Your task to perform on an android device: toggle wifi Image 0: 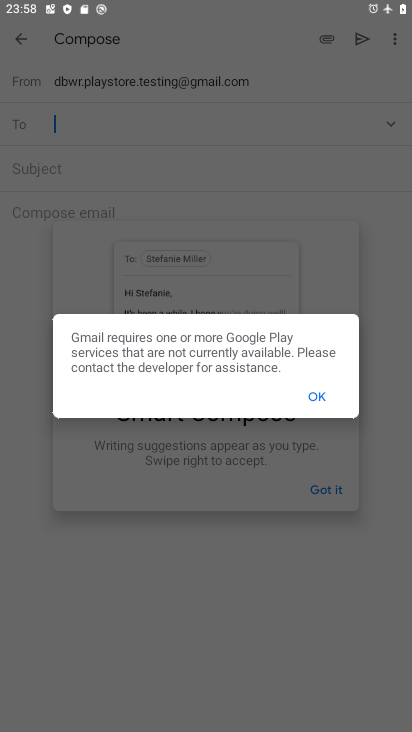
Step 0: press home button
Your task to perform on an android device: toggle wifi Image 1: 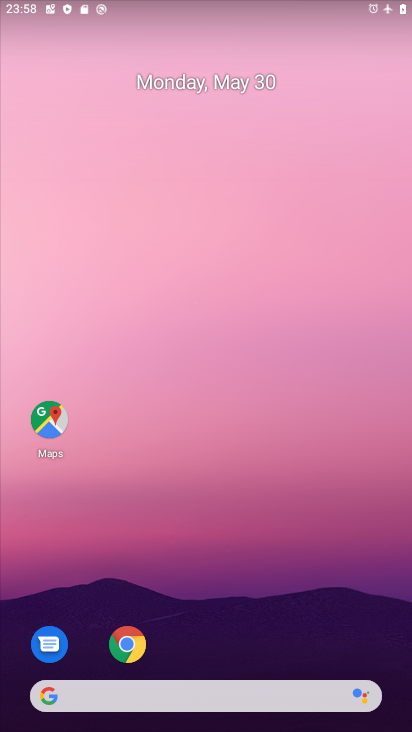
Step 1: drag from (379, 622) to (349, 119)
Your task to perform on an android device: toggle wifi Image 2: 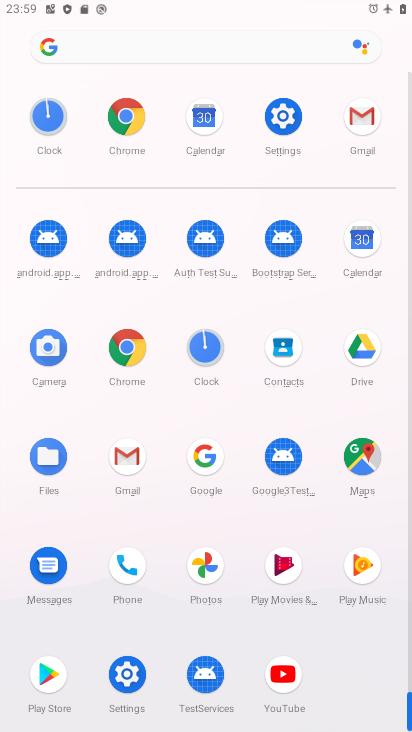
Step 2: click (127, 675)
Your task to perform on an android device: toggle wifi Image 3: 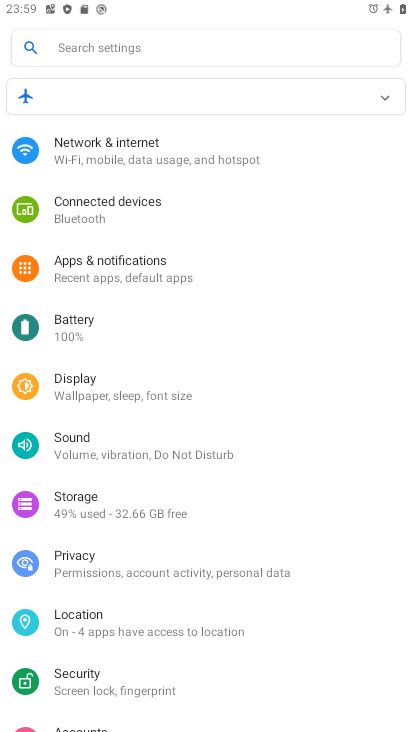
Step 3: click (85, 150)
Your task to perform on an android device: toggle wifi Image 4: 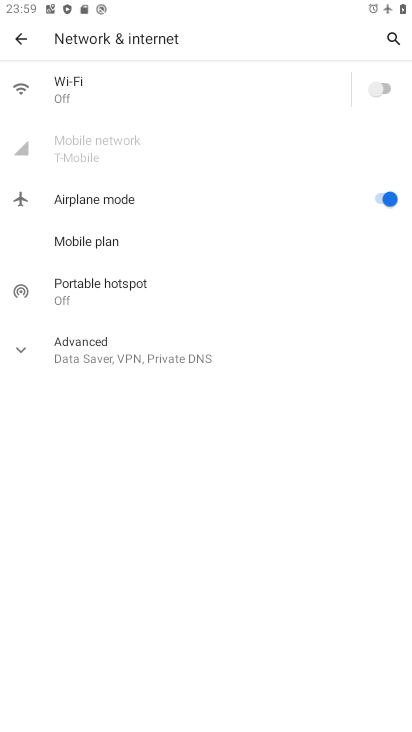
Step 4: click (387, 85)
Your task to perform on an android device: toggle wifi Image 5: 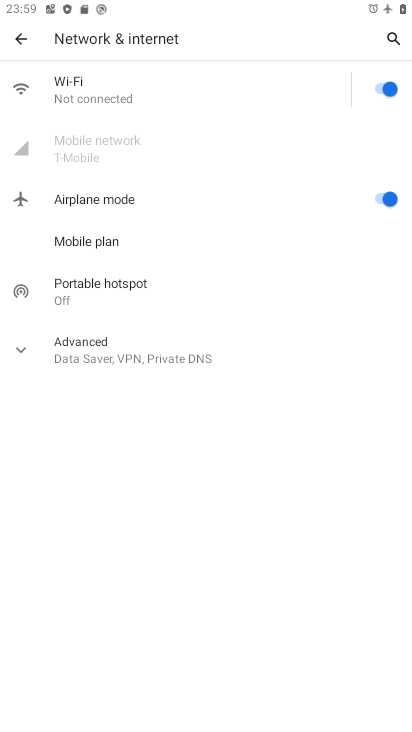
Step 5: task complete